Your task to perform on an android device: Open Android settings Image 0: 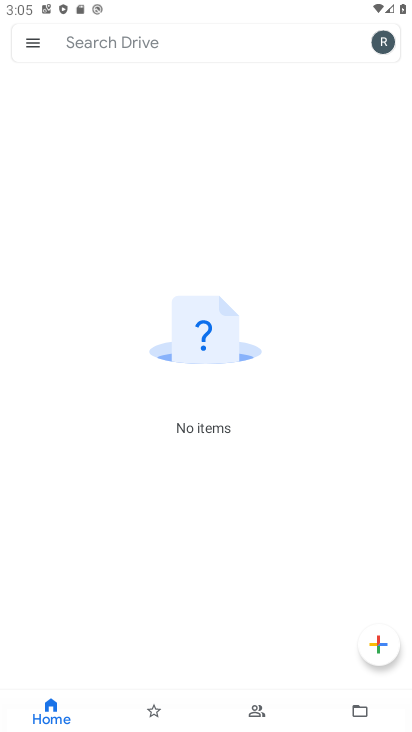
Step 0: drag from (186, 530) to (208, 333)
Your task to perform on an android device: Open Android settings Image 1: 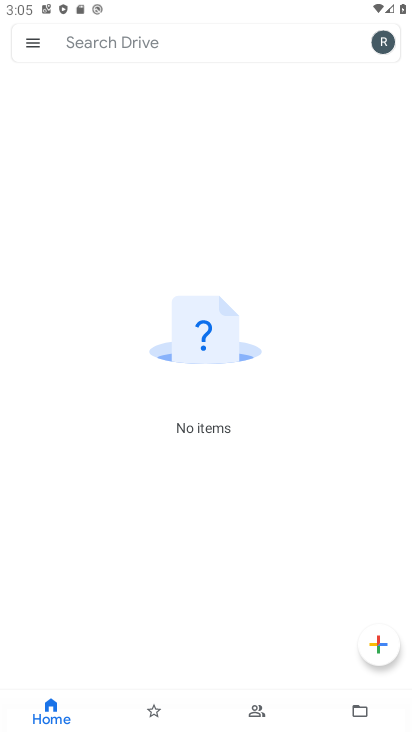
Step 1: press home button
Your task to perform on an android device: Open Android settings Image 2: 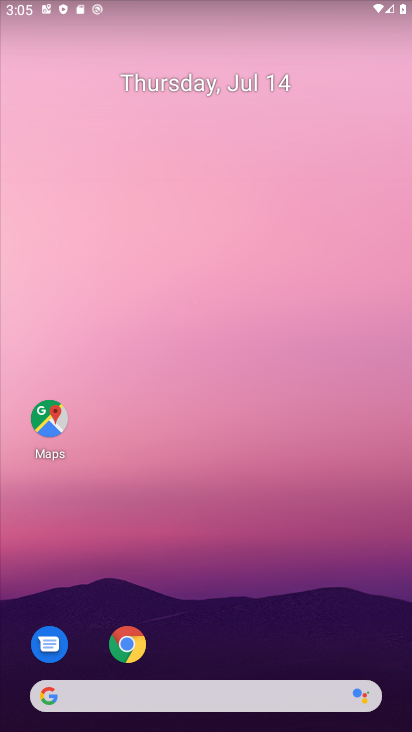
Step 2: drag from (177, 660) to (267, 213)
Your task to perform on an android device: Open Android settings Image 3: 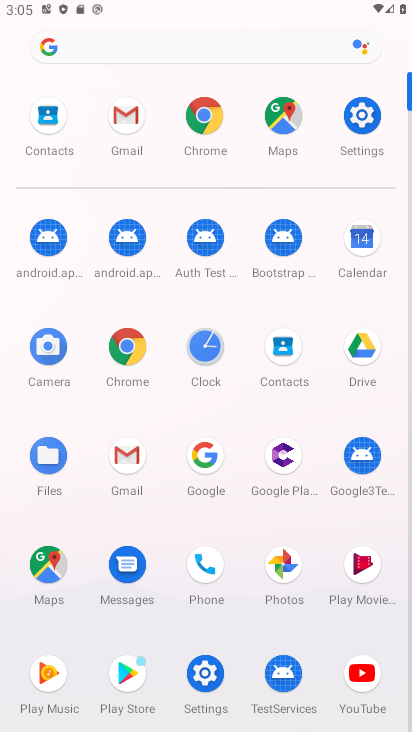
Step 3: click (174, 665)
Your task to perform on an android device: Open Android settings Image 4: 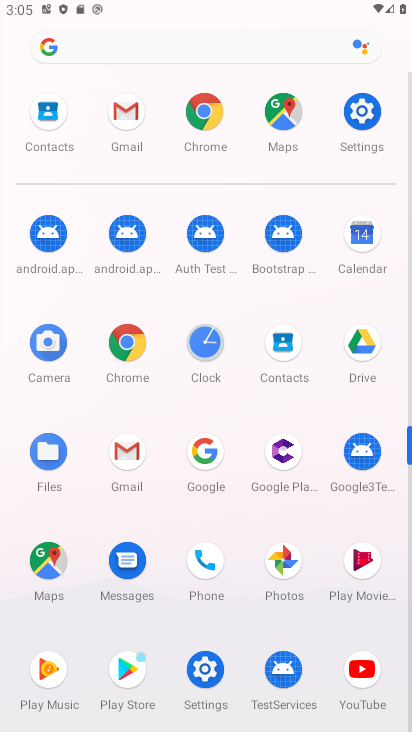
Step 4: click (205, 657)
Your task to perform on an android device: Open Android settings Image 5: 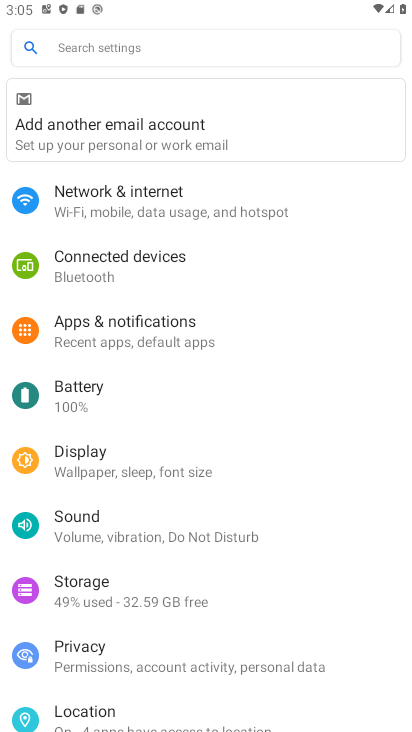
Step 5: drag from (166, 664) to (180, 56)
Your task to perform on an android device: Open Android settings Image 6: 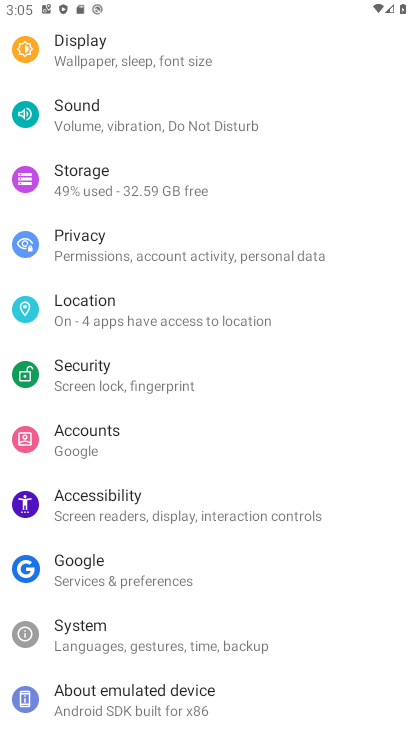
Step 6: drag from (182, 598) to (213, 29)
Your task to perform on an android device: Open Android settings Image 7: 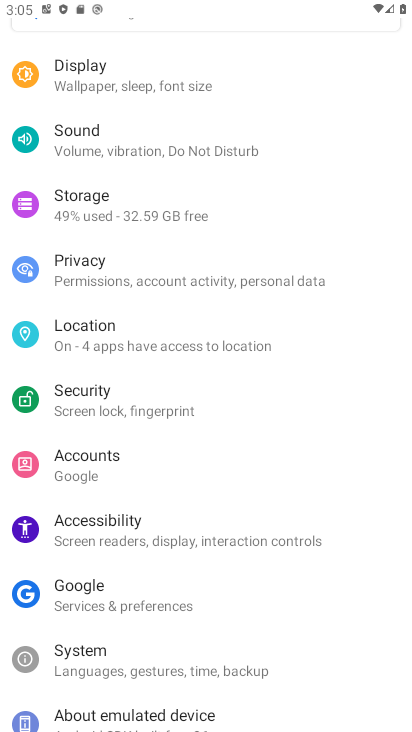
Step 7: click (141, 705)
Your task to perform on an android device: Open Android settings Image 8: 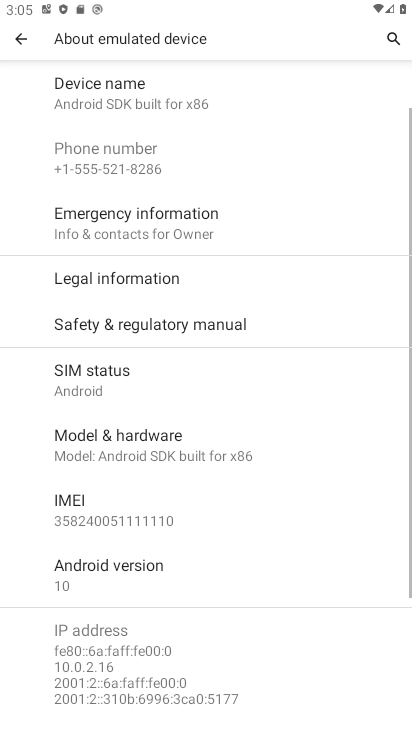
Step 8: drag from (153, 685) to (239, 69)
Your task to perform on an android device: Open Android settings Image 9: 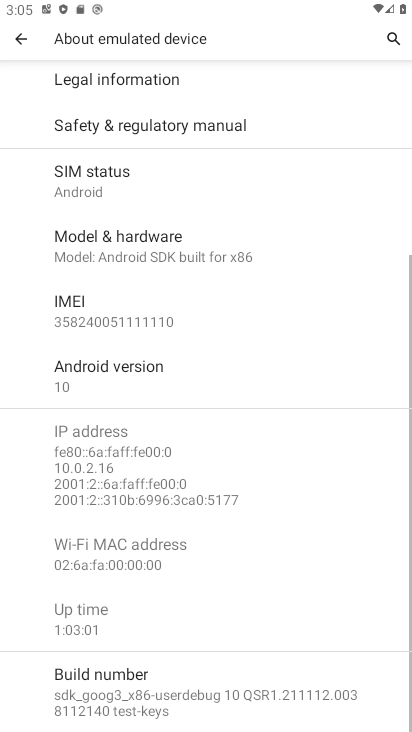
Step 9: click (131, 374)
Your task to perform on an android device: Open Android settings Image 10: 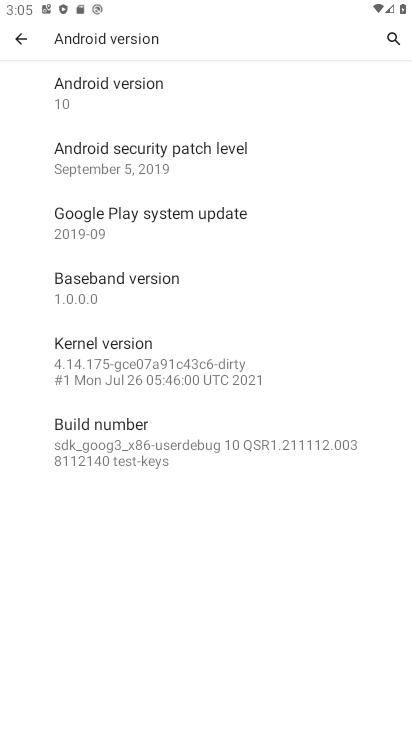
Step 10: task complete